Your task to perform on an android device: change alarm snooze length Image 0: 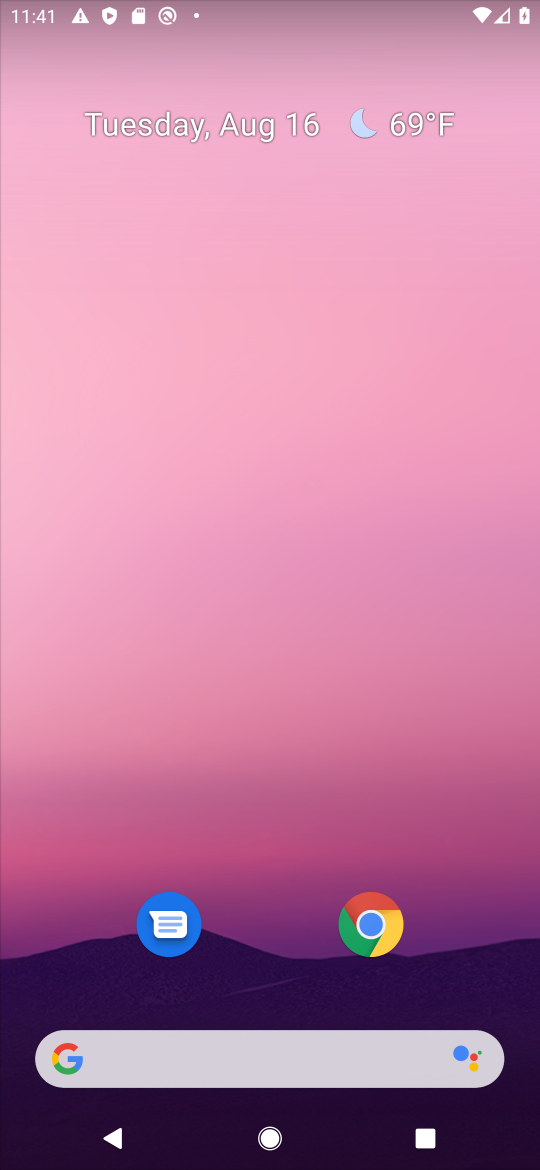
Step 0: drag from (321, 1002) to (327, 145)
Your task to perform on an android device: change alarm snooze length Image 1: 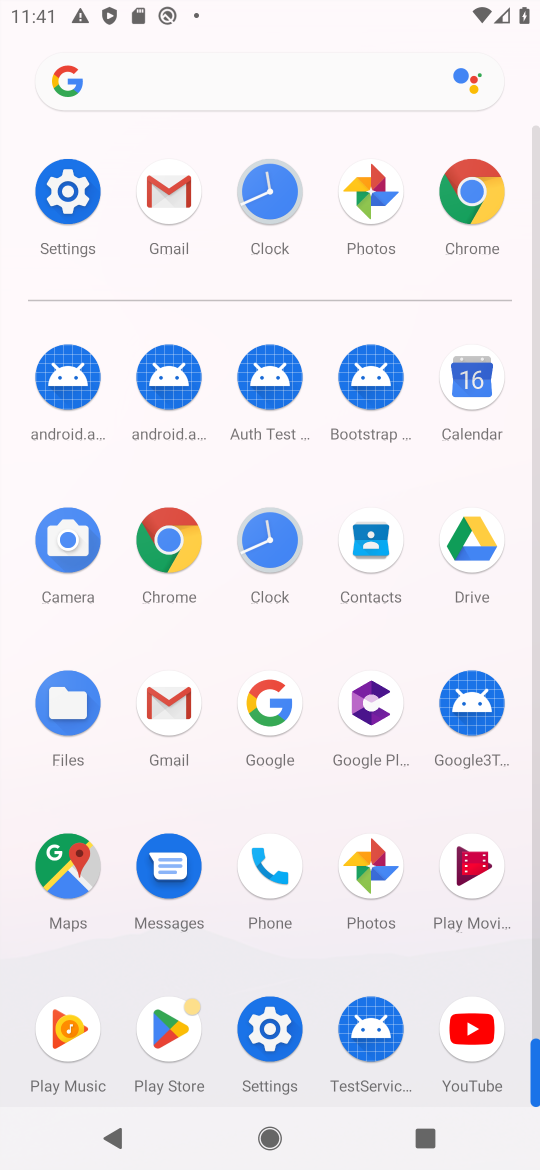
Step 1: click (75, 193)
Your task to perform on an android device: change alarm snooze length Image 2: 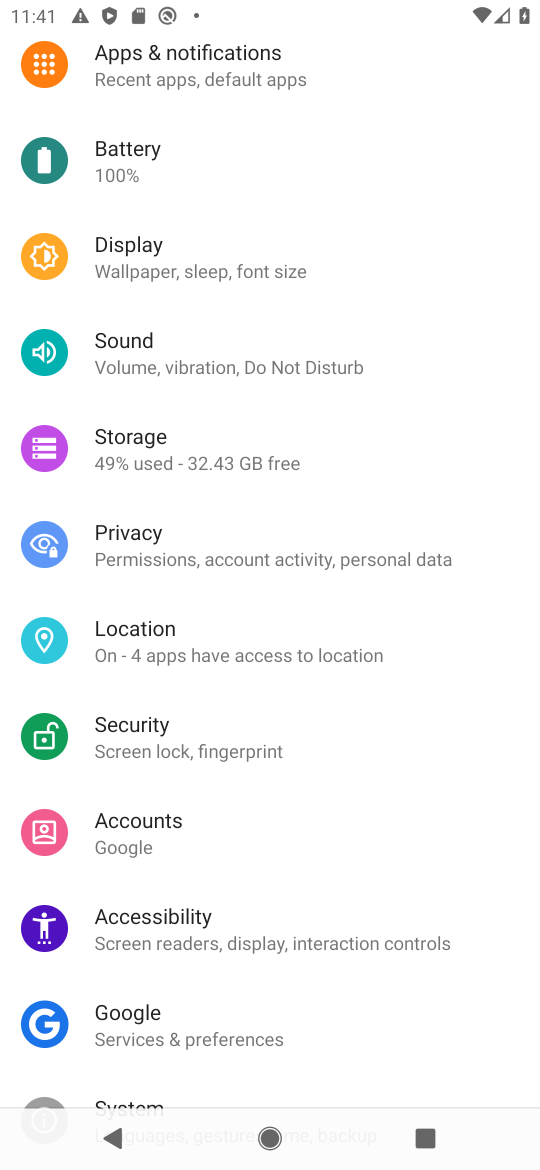
Step 2: press home button
Your task to perform on an android device: change alarm snooze length Image 3: 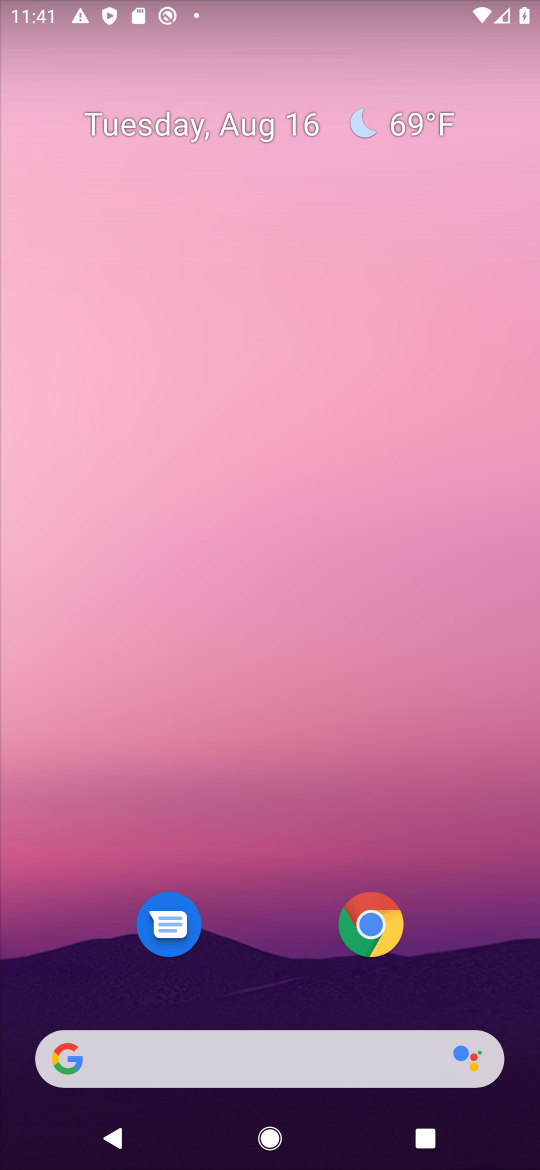
Step 3: drag from (348, 805) to (238, 142)
Your task to perform on an android device: change alarm snooze length Image 4: 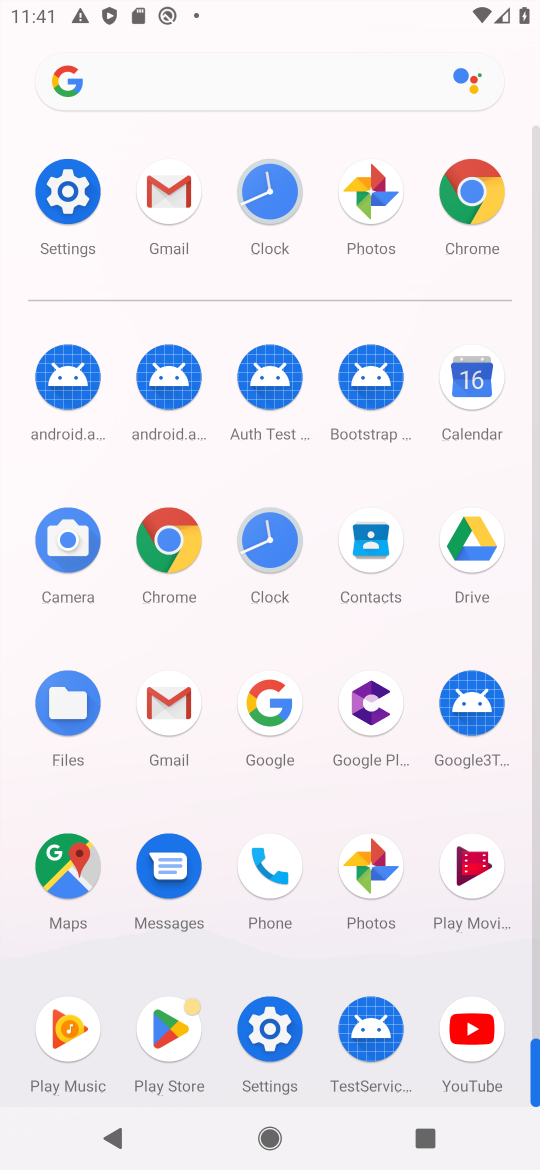
Step 4: click (294, 194)
Your task to perform on an android device: change alarm snooze length Image 5: 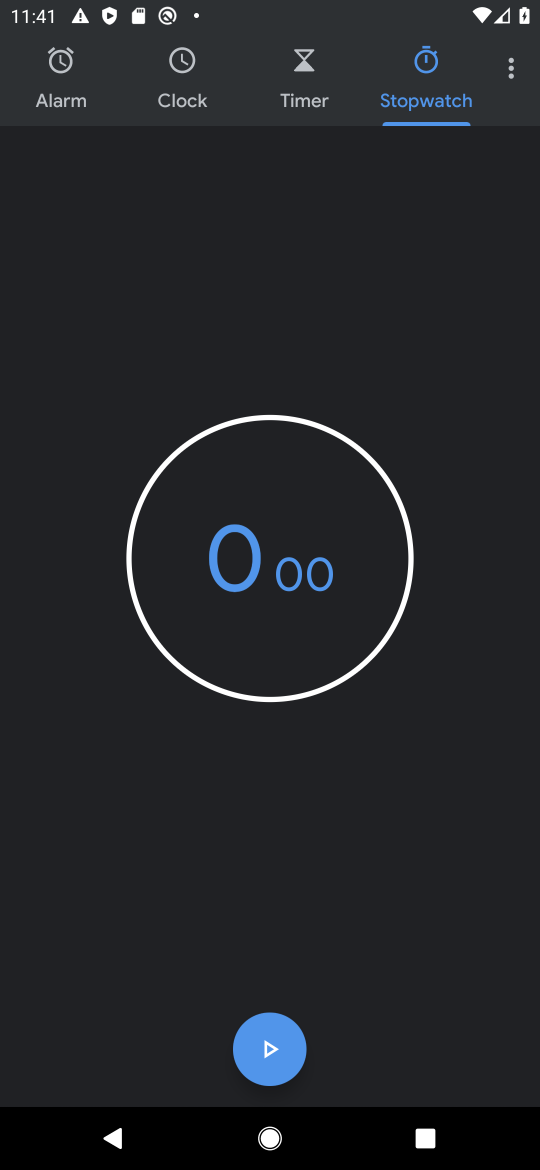
Step 5: click (503, 65)
Your task to perform on an android device: change alarm snooze length Image 6: 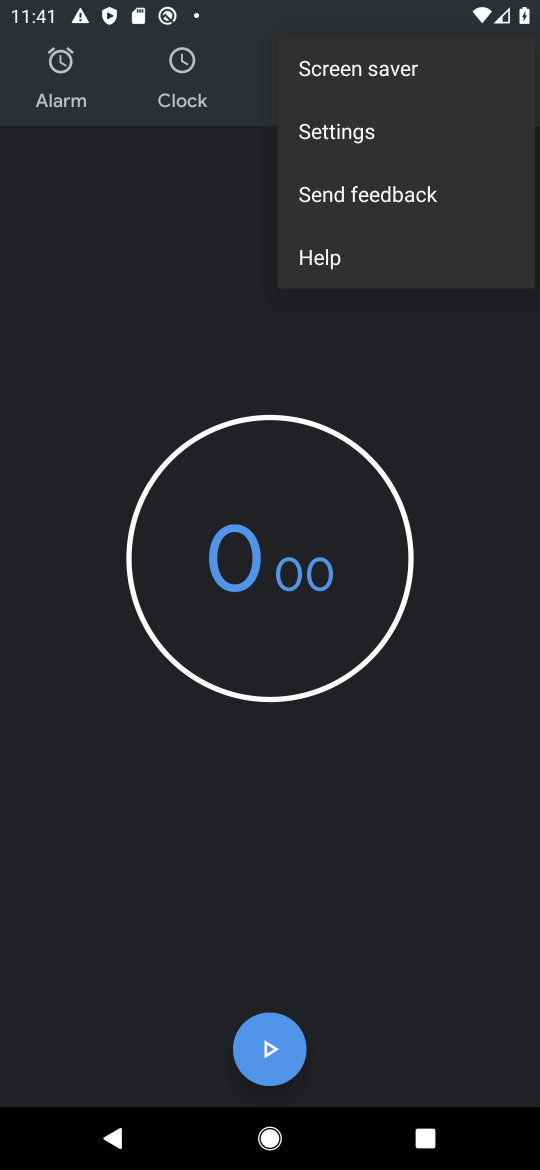
Step 6: click (369, 110)
Your task to perform on an android device: change alarm snooze length Image 7: 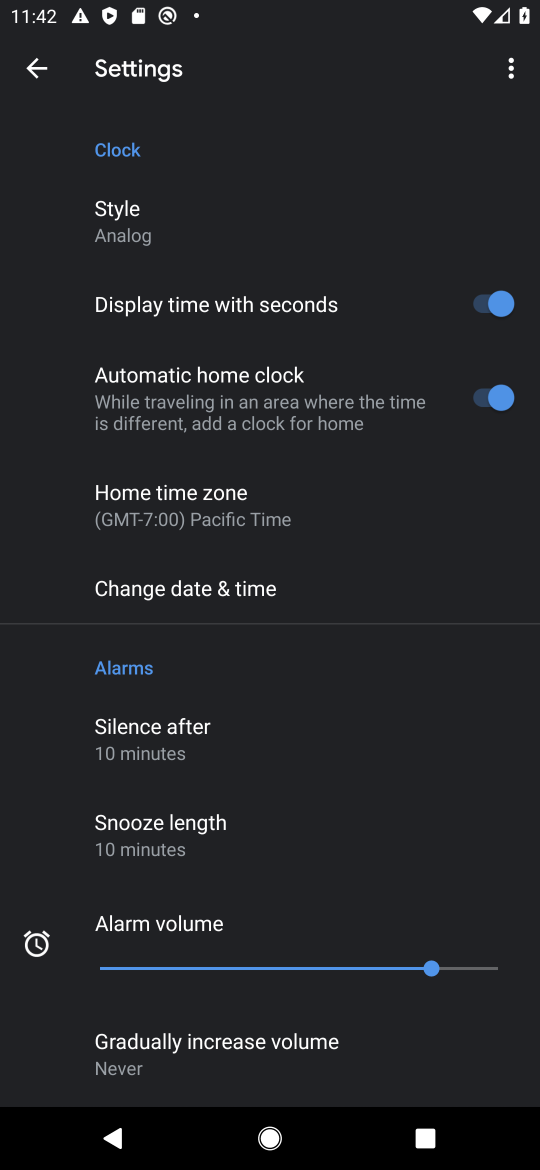
Step 7: click (218, 872)
Your task to perform on an android device: change alarm snooze length Image 8: 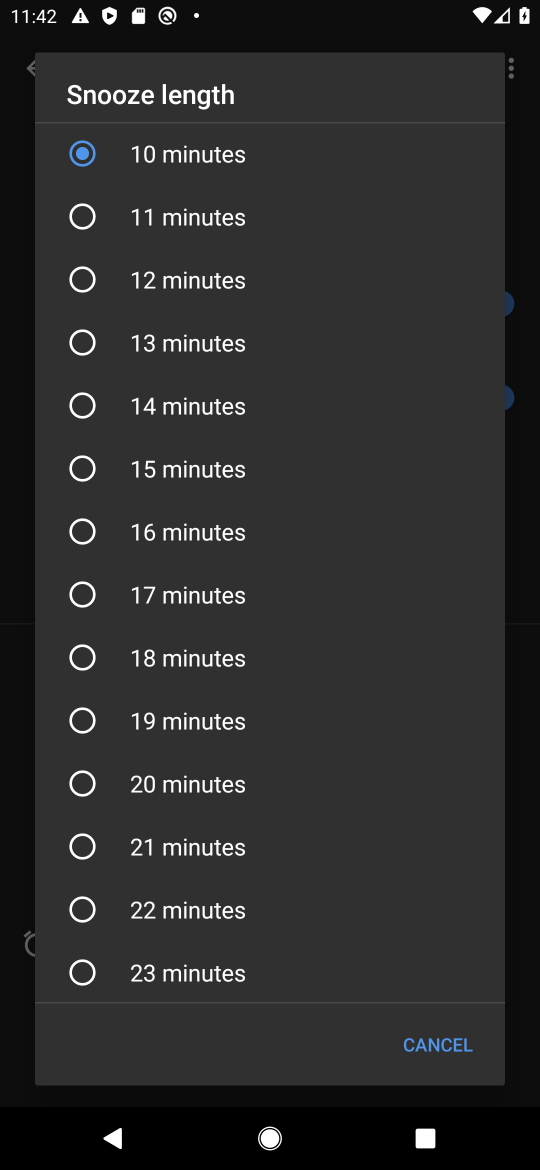
Step 8: click (218, 872)
Your task to perform on an android device: change alarm snooze length Image 9: 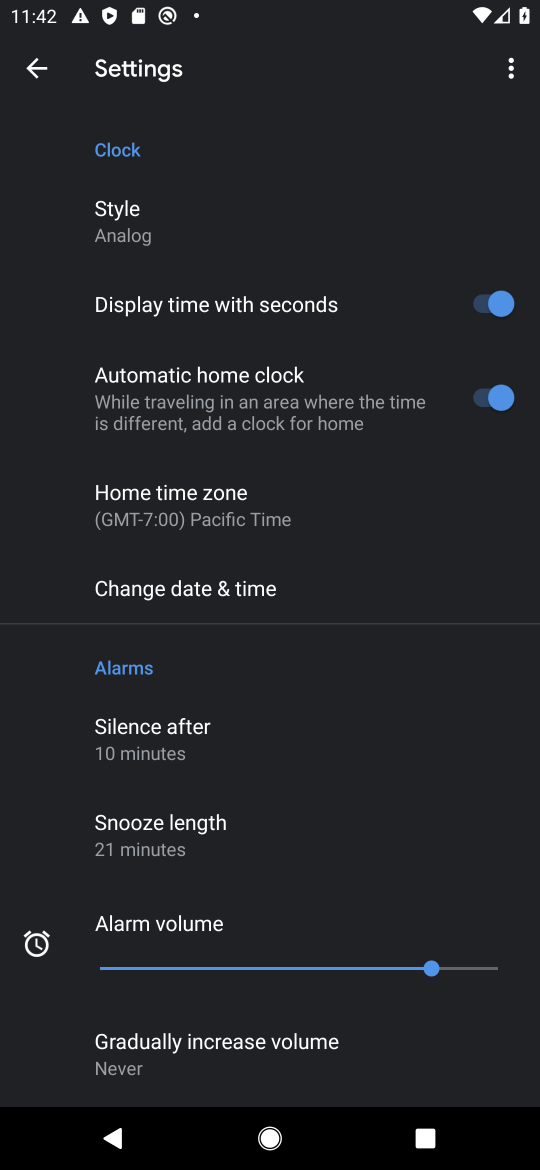
Step 9: task complete